Your task to perform on an android device: Find coffee shops on Maps Image 0: 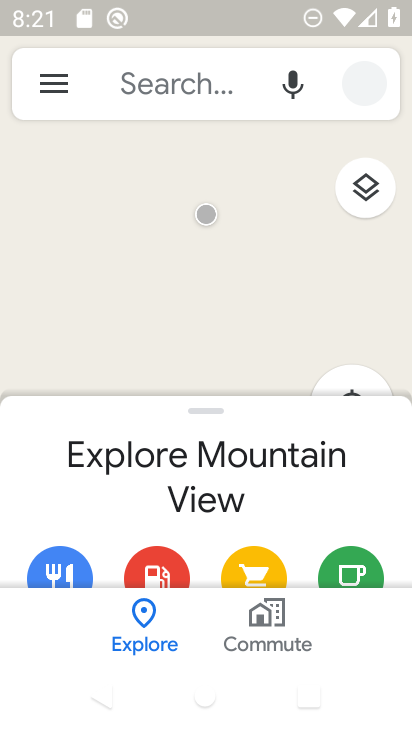
Step 0: click (264, 246)
Your task to perform on an android device: Find coffee shops on Maps Image 1: 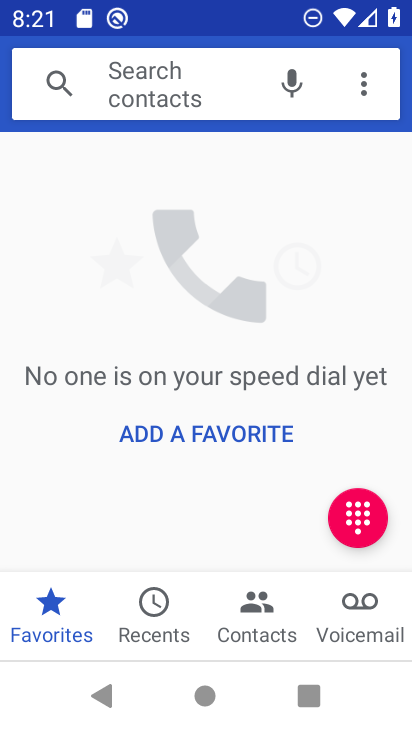
Step 1: press home button
Your task to perform on an android device: Find coffee shops on Maps Image 2: 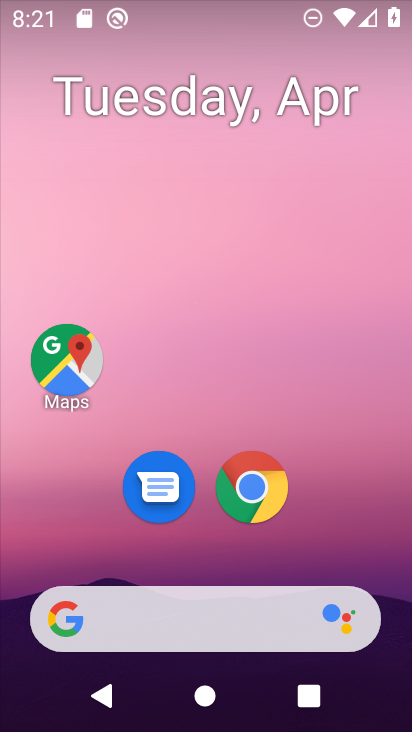
Step 2: drag from (177, 502) to (222, 244)
Your task to perform on an android device: Find coffee shops on Maps Image 3: 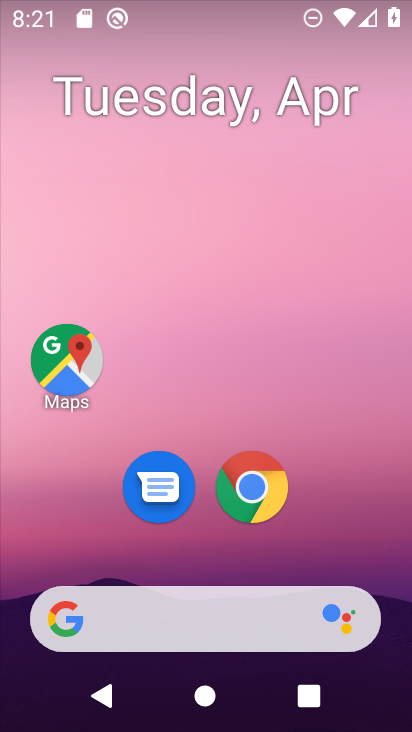
Step 3: drag from (301, 275) to (318, 201)
Your task to perform on an android device: Find coffee shops on Maps Image 4: 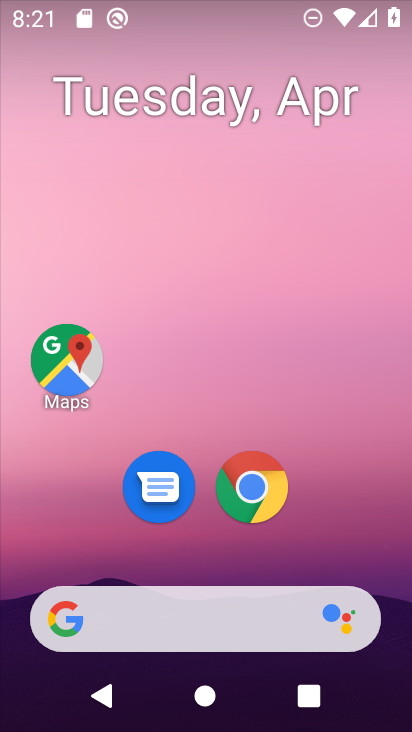
Step 4: drag from (194, 577) to (301, 87)
Your task to perform on an android device: Find coffee shops on Maps Image 5: 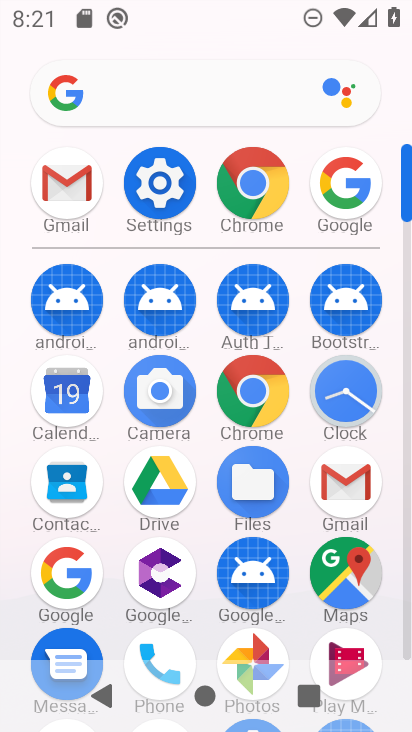
Step 5: drag from (213, 597) to (243, 309)
Your task to perform on an android device: Find coffee shops on Maps Image 6: 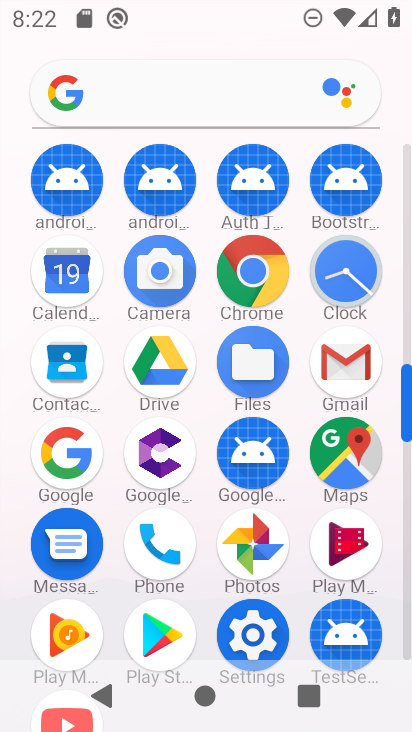
Step 6: click (347, 457)
Your task to perform on an android device: Find coffee shops on Maps Image 7: 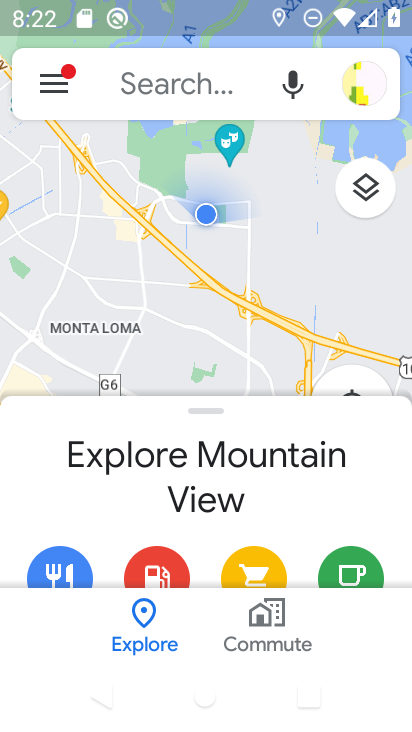
Step 7: click (184, 82)
Your task to perform on an android device: Find coffee shops on Maps Image 8: 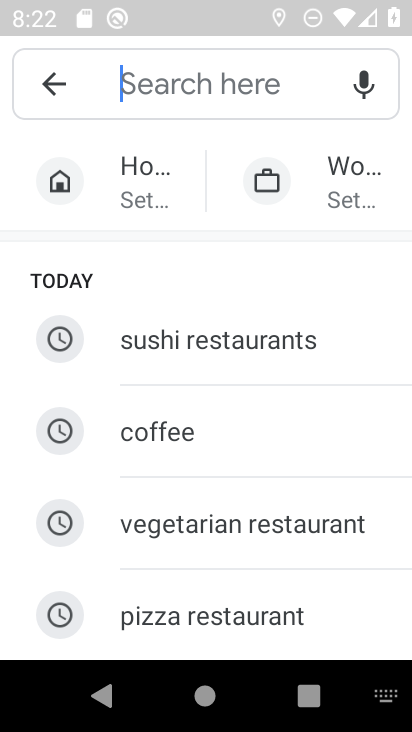
Step 8: type "coffee shopes"
Your task to perform on an android device: Find coffee shops on Maps Image 9: 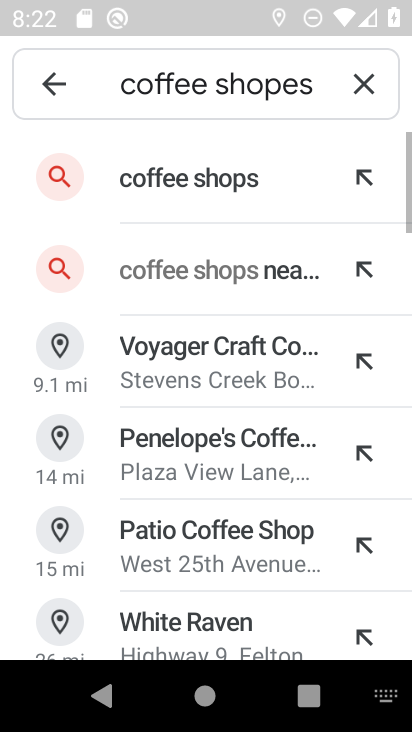
Step 9: click (174, 170)
Your task to perform on an android device: Find coffee shops on Maps Image 10: 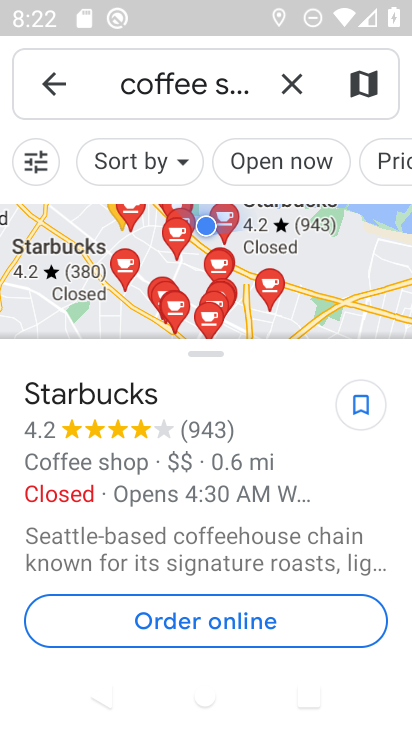
Step 10: task complete